Your task to perform on an android device: Go to Yahoo.com Image 0: 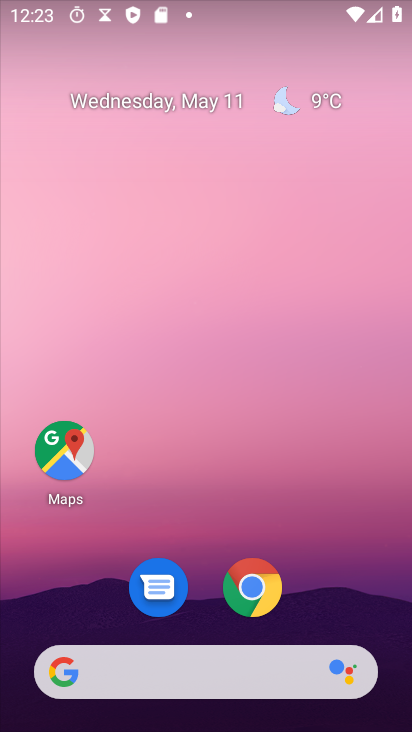
Step 0: drag from (361, 661) to (116, 13)
Your task to perform on an android device: Go to Yahoo.com Image 1: 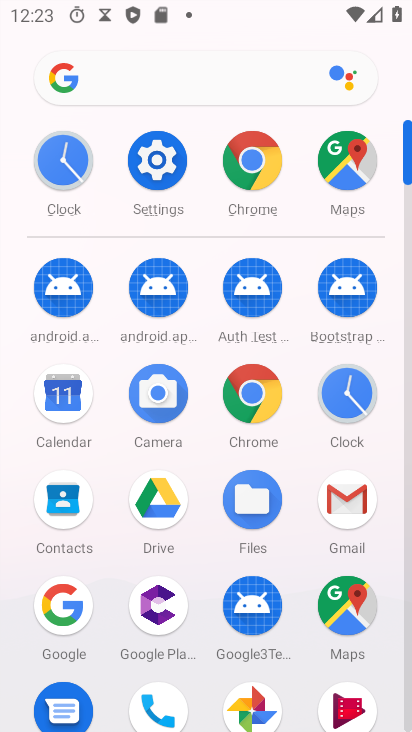
Step 1: click (243, 166)
Your task to perform on an android device: Go to Yahoo.com Image 2: 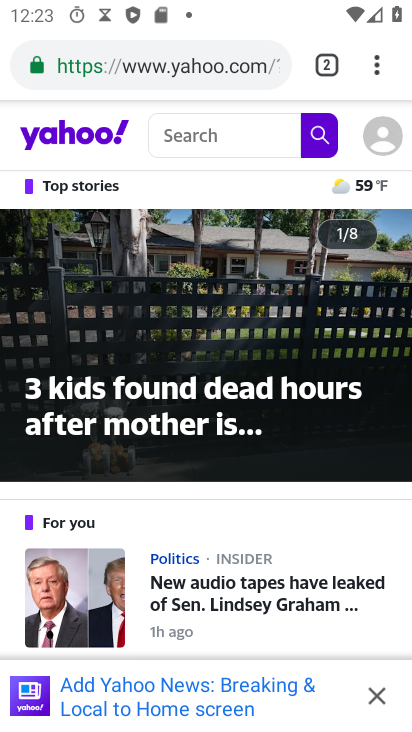
Step 2: click (244, 144)
Your task to perform on an android device: Go to Yahoo.com Image 3: 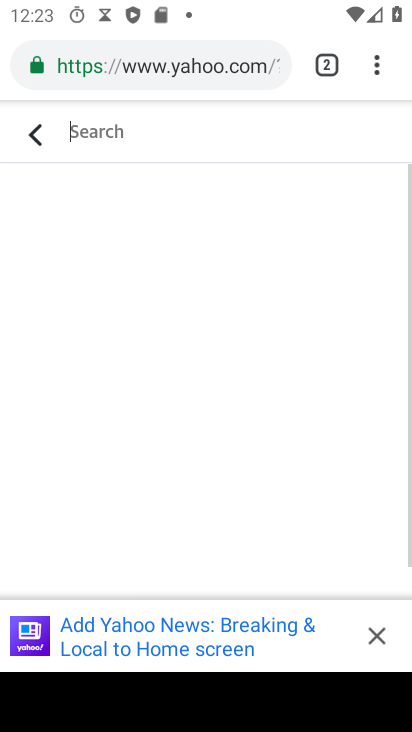
Step 3: task complete